Your task to perform on an android device: open device folders in google photos Image 0: 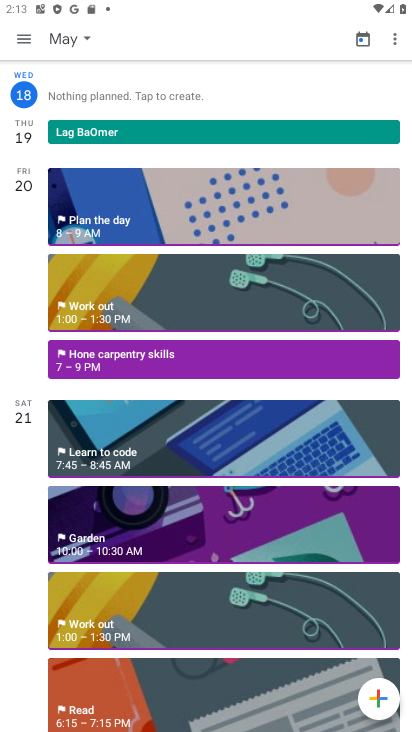
Step 0: press back button
Your task to perform on an android device: open device folders in google photos Image 1: 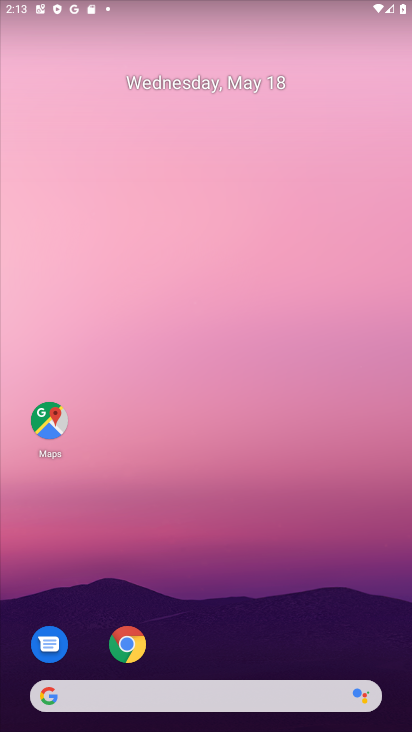
Step 1: drag from (250, 618) to (204, 143)
Your task to perform on an android device: open device folders in google photos Image 2: 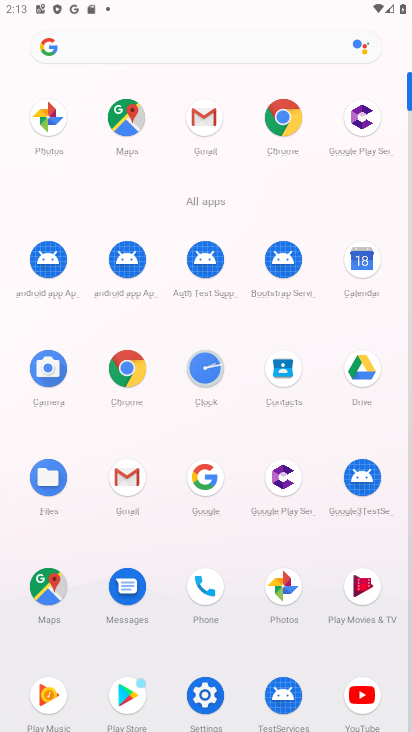
Step 2: click (48, 117)
Your task to perform on an android device: open device folders in google photos Image 3: 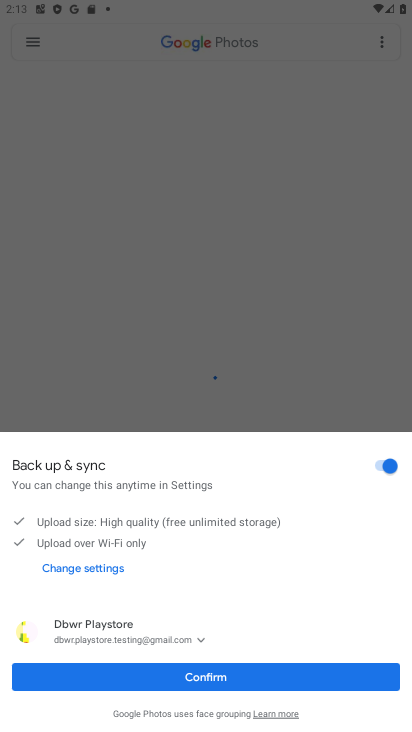
Step 3: click (201, 684)
Your task to perform on an android device: open device folders in google photos Image 4: 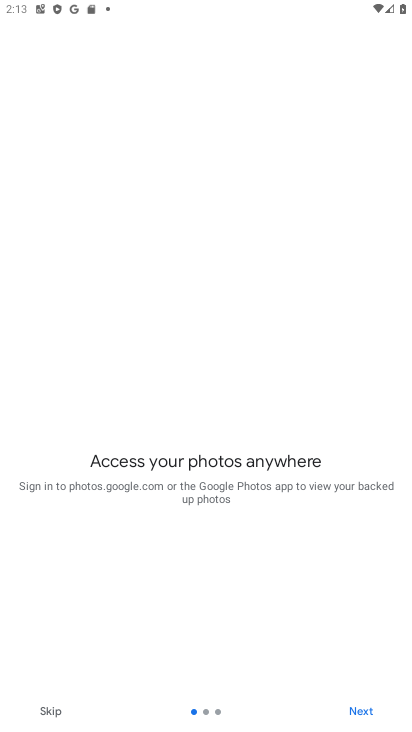
Step 4: click (351, 711)
Your task to perform on an android device: open device folders in google photos Image 5: 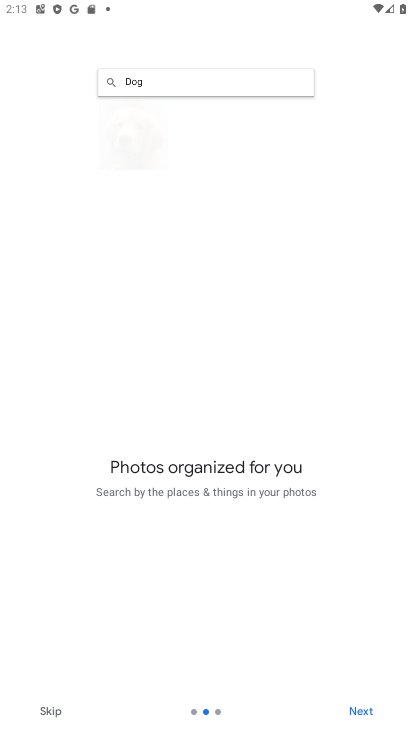
Step 5: click (351, 711)
Your task to perform on an android device: open device folders in google photos Image 6: 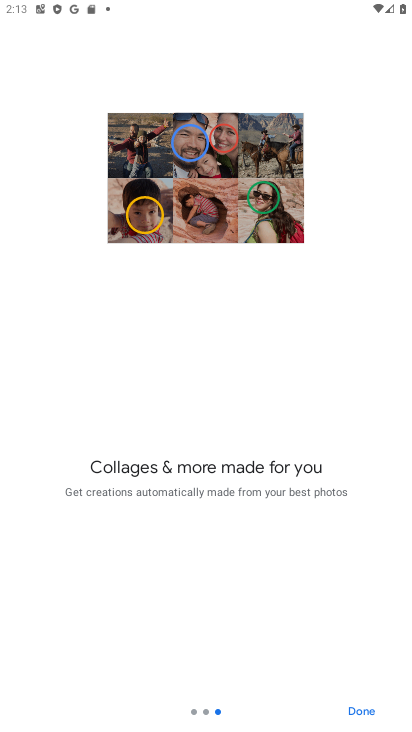
Step 6: click (353, 707)
Your task to perform on an android device: open device folders in google photos Image 7: 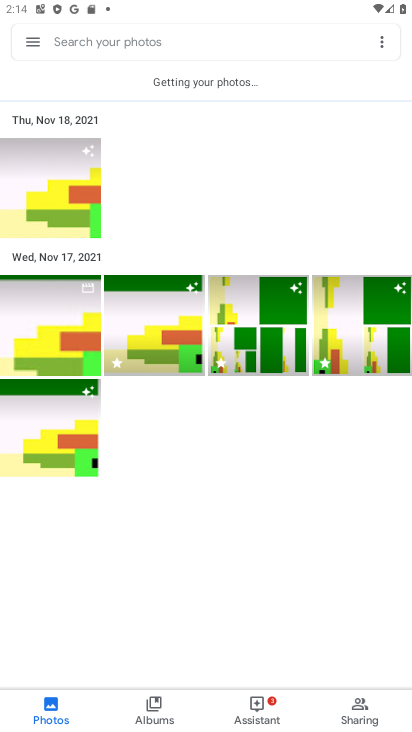
Step 7: click (34, 46)
Your task to perform on an android device: open device folders in google photos Image 8: 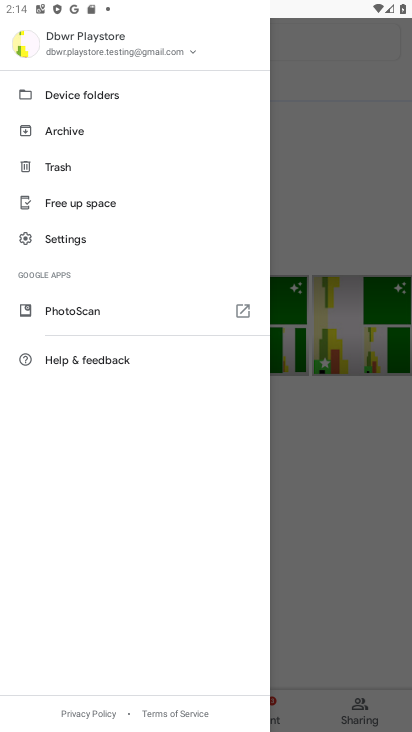
Step 8: click (76, 89)
Your task to perform on an android device: open device folders in google photos Image 9: 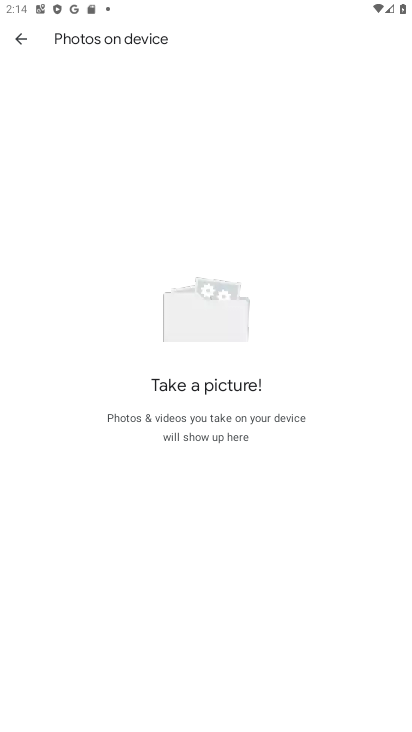
Step 9: task complete